Your task to perform on an android device: Go to Google maps Image 0: 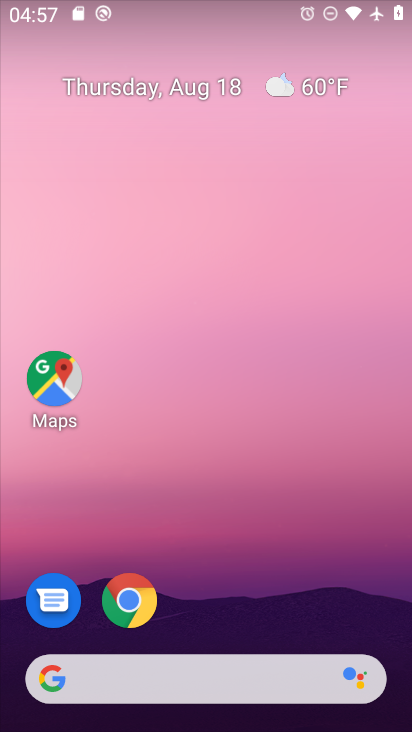
Step 0: press home button
Your task to perform on an android device: Go to Google maps Image 1: 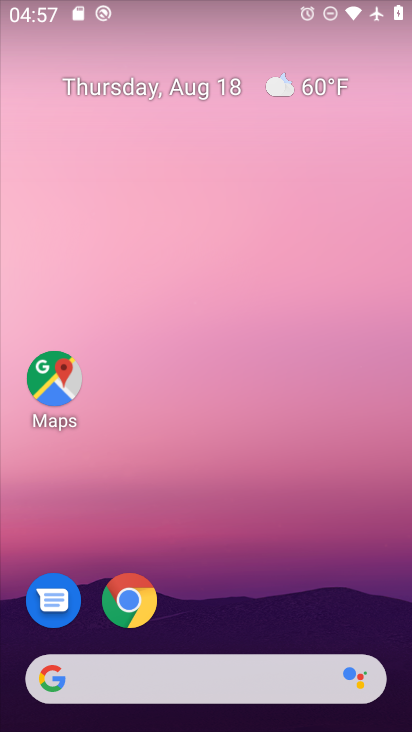
Step 1: click (49, 372)
Your task to perform on an android device: Go to Google maps Image 2: 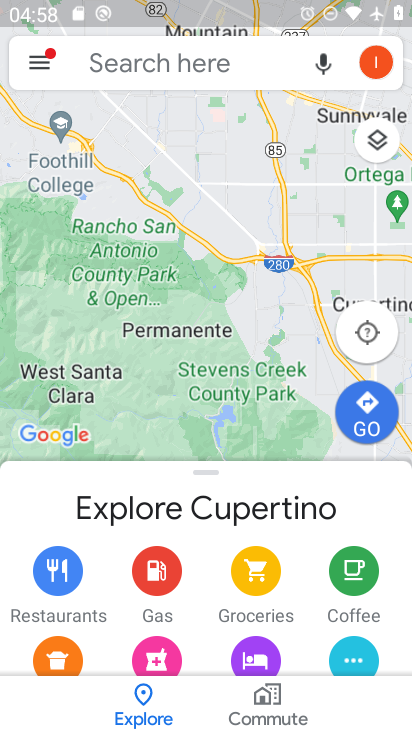
Step 2: task complete